Your task to perform on an android device: Open CNN.com Image 0: 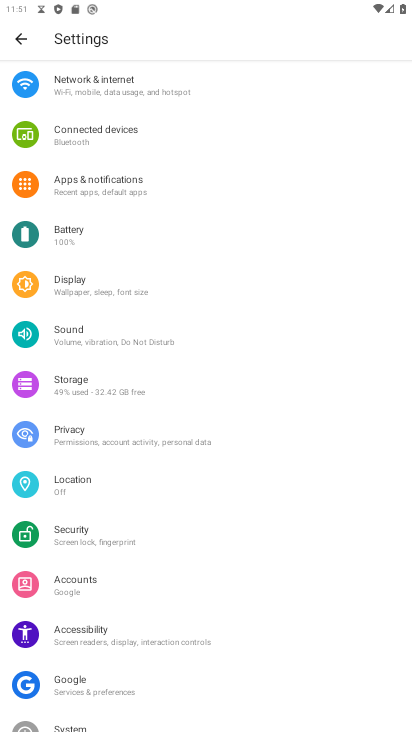
Step 0: press home button
Your task to perform on an android device: Open CNN.com Image 1: 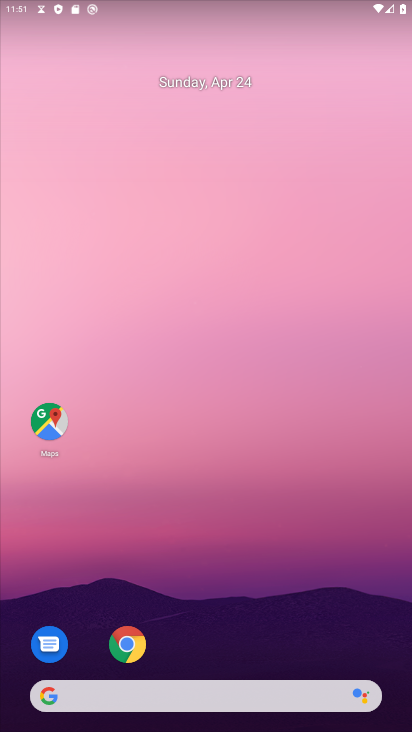
Step 1: click (126, 647)
Your task to perform on an android device: Open CNN.com Image 2: 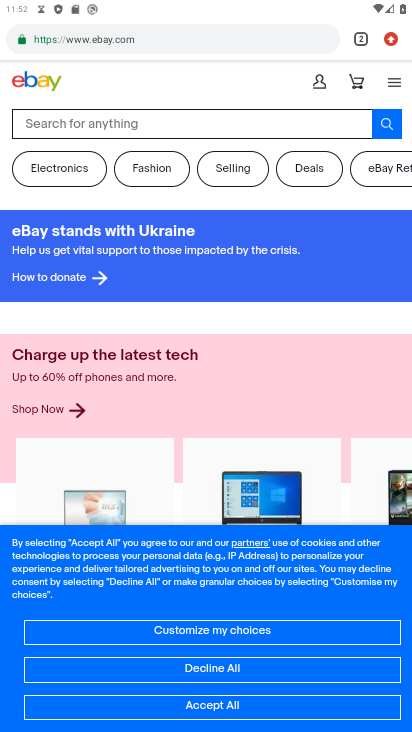
Step 2: click (86, 46)
Your task to perform on an android device: Open CNN.com Image 3: 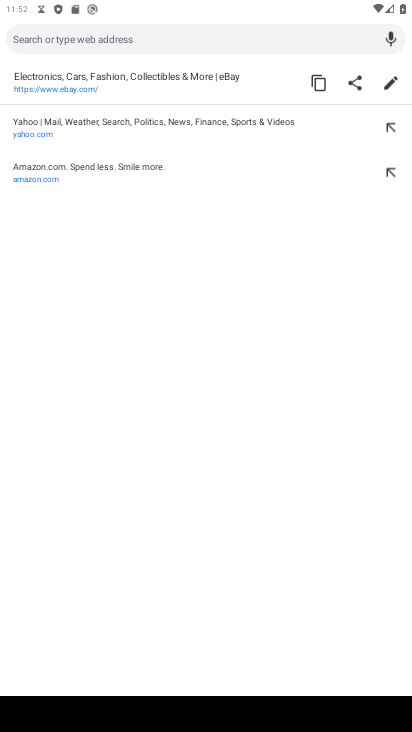
Step 3: type "cnn.com"
Your task to perform on an android device: Open CNN.com Image 4: 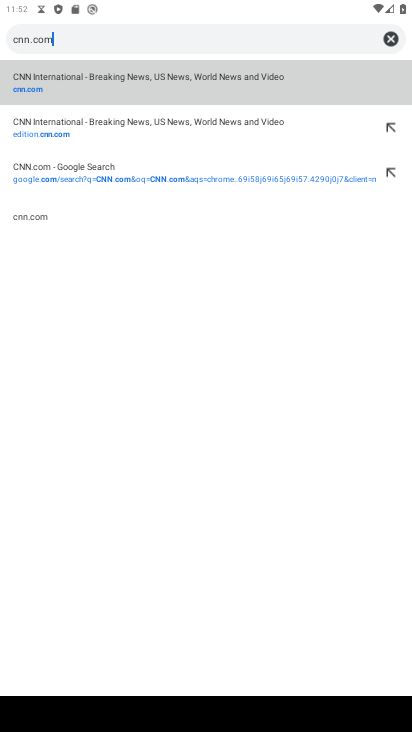
Step 4: click (31, 89)
Your task to perform on an android device: Open CNN.com Image 5: 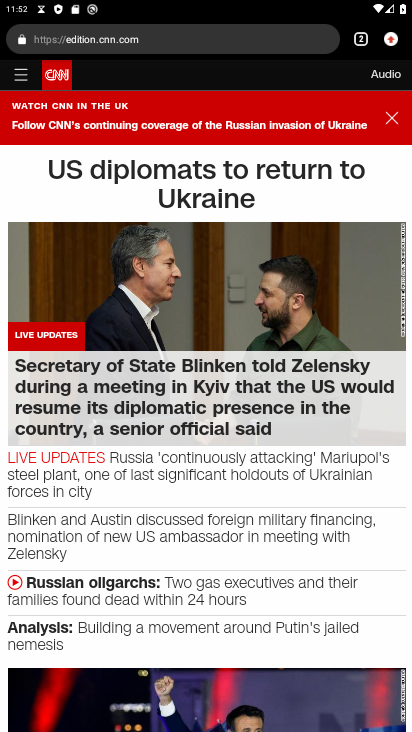
Step 5: task complete